Your task to perform on an android device: toggle data saver in the chrome app Image 0: 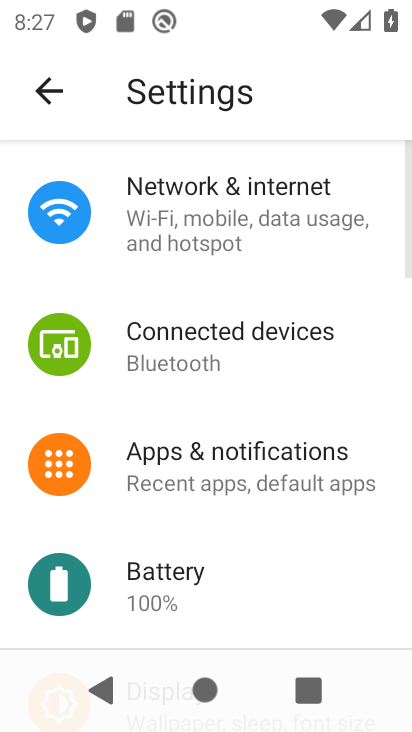
Step 0: press home button
Your task to perform on an android device: toggle data saver in the chrome app Image 1: 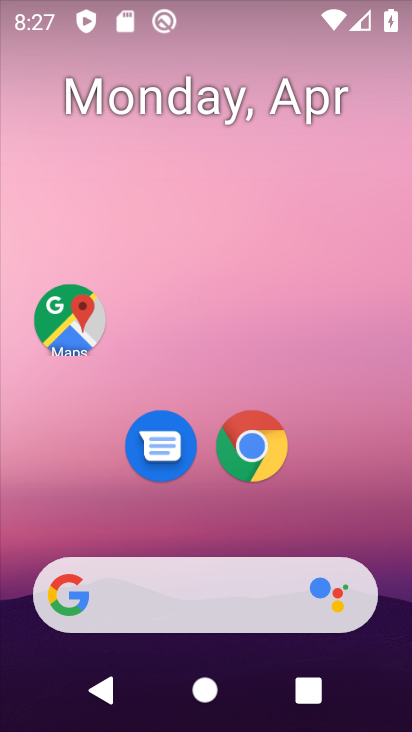
Step 1: drag from (319, 488) to (324, 64)
Your task to perform on an android device: toggle data saver in the chrome app Image 2: 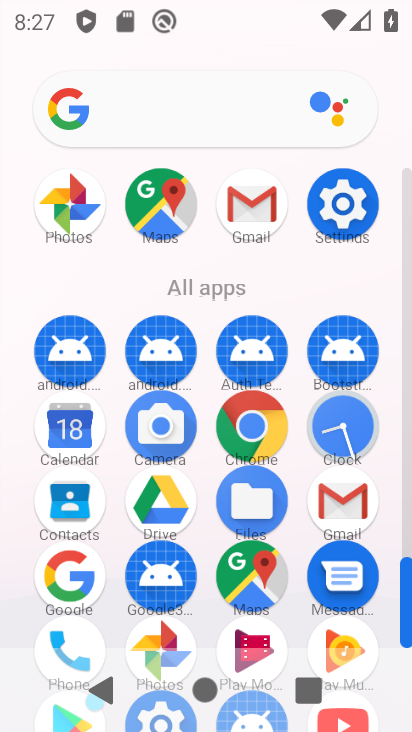
Step 2: click (266, 436)
Your task to perform on an android device: toggle data saver in the chrome app Image 3: 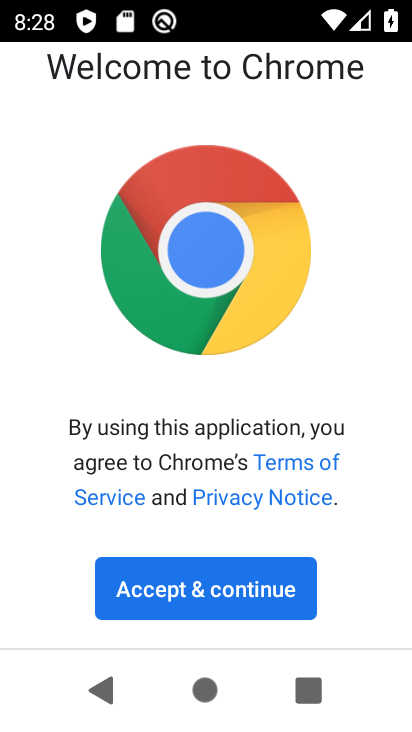
Step 3: click (259, 584)
Your task to perform on an android device: toggle data saver in the chrome app Image 4: 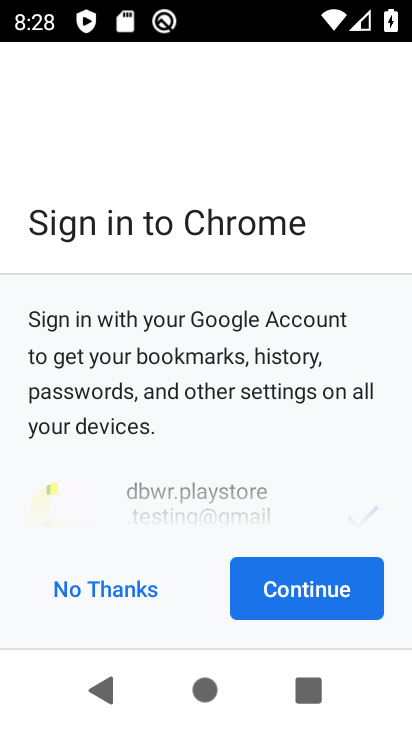
Step 4: click (259, 584)
Your task to perform on an android device: toggle data saver in the chrome app Image 5: 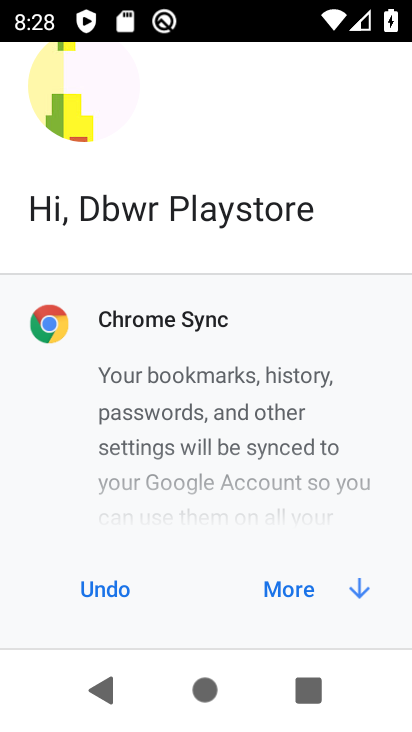
Step 5: click (259, 584)
Your task to perform on an android device: toggle data saver in the chrome app Image 6: 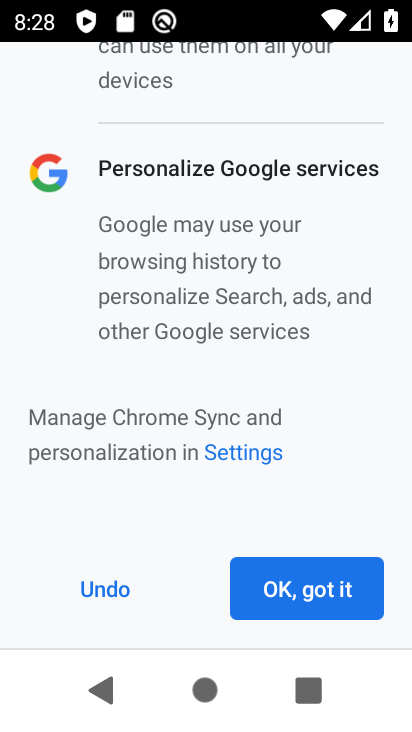
Step 6: click (260, 585)
Your task to perform on an android device: toggle data saver in the chrome app Image 7: 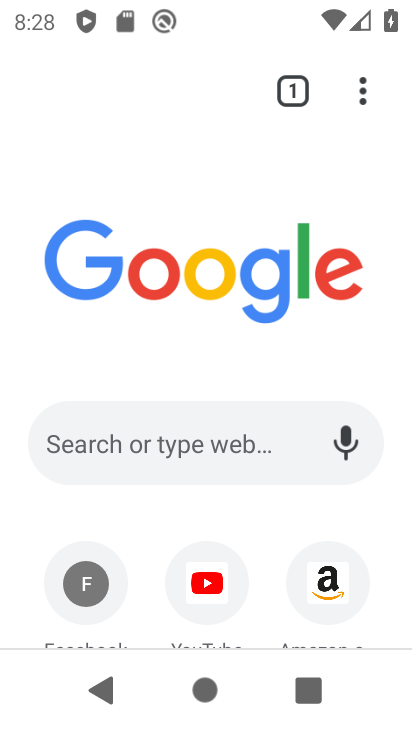
Step 7: click (358, 96)
Your task to perform on an android device: toggle data saver in the chrome app Image 8: 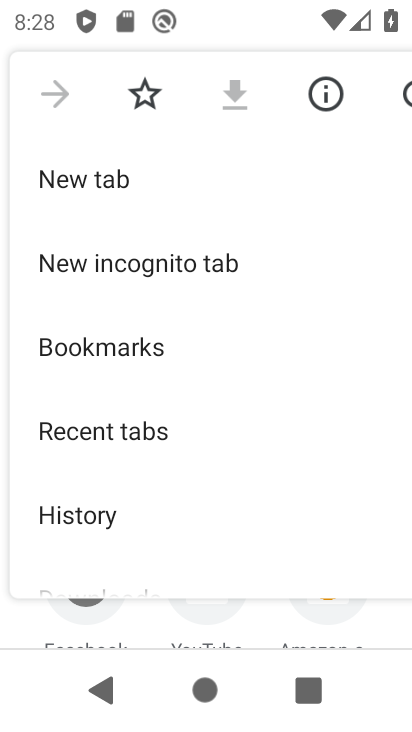
Step 8: drag from (349, 452) to (348, 211)
Your task to perform on an android device: toggle data saver in the chrome app Image 9: 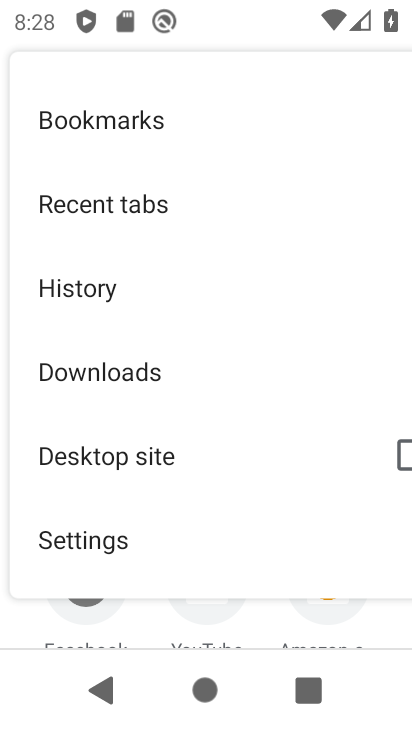
Step 9: drag from (318, 454) to (314, 277)
Your task to perform on an android device: toggle data saver in the chrome app Image 10: 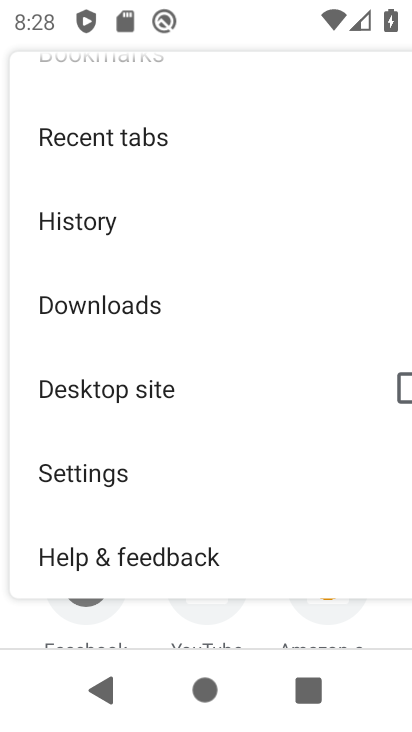
Step 10: click (124, 473)
Your task to perform on an android device: toggle data saver in the chrome app Image 11: 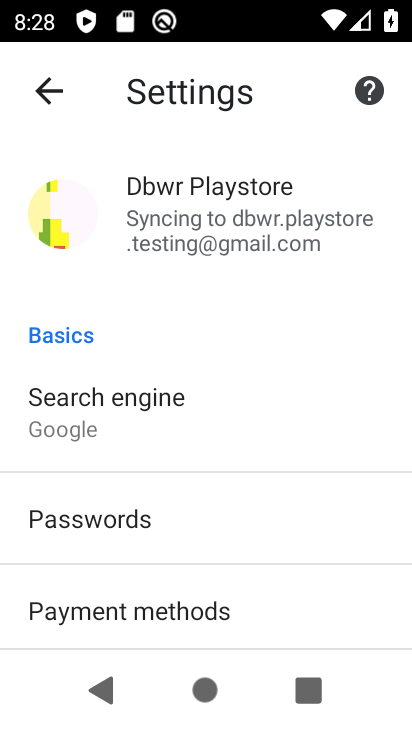
Step 11: drag from (330, 521) to (349, 261)
Your task to perform on an android device: toggle data saver in the chrome app Image 12: 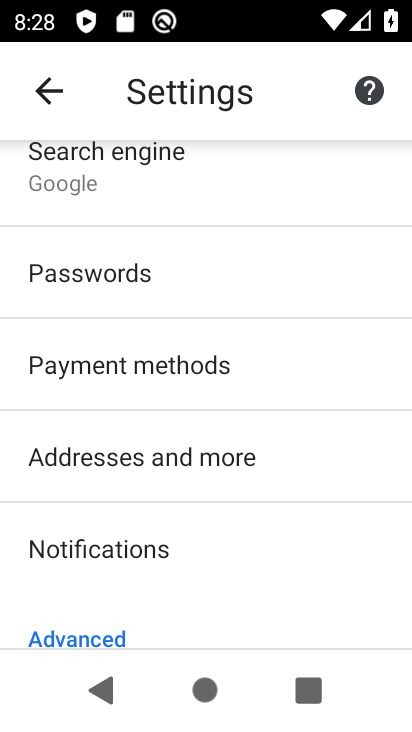
Step 12: drag from (357, 559) to (360, 232)
Your task to perform on an android device: toggle data saver in the chrome app Image 13: 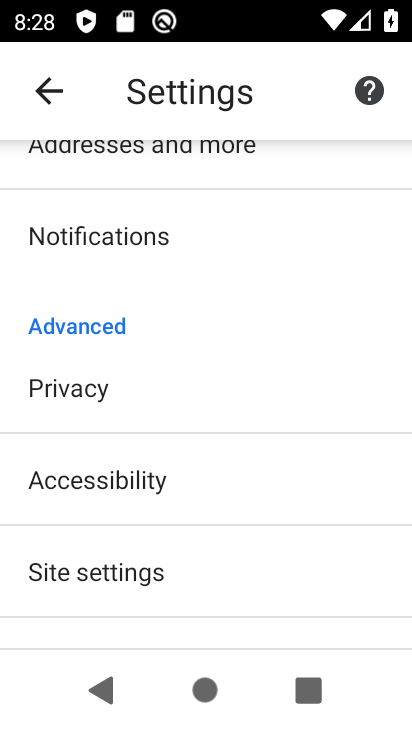
Step 13: drag from (335, 571) to (347, 268)
Your task to perform on an android device: toggle data saver in the chrome app Image 14: 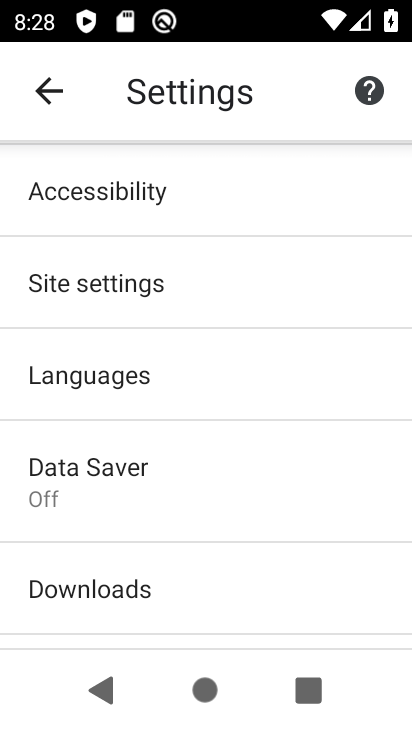
Step 14: click (239, 487)
Your task to perform on an android device: toggle data saver in the chrome app Image 15: 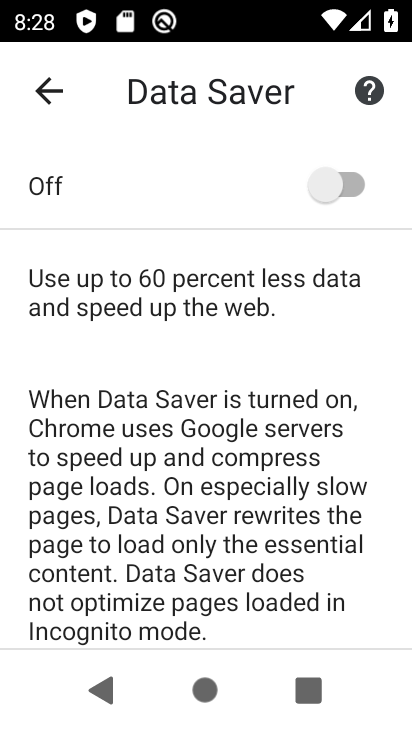
Step 15: click (319, 187)
Your task to perform on an android device: toggle data saver in the chrome app Image 16: 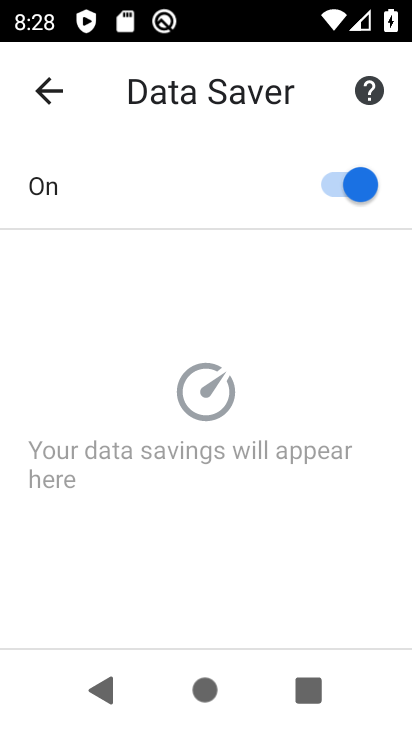
Step 16: task complete